Your task to perform on an android device: open chrome privacy settings Image 0: 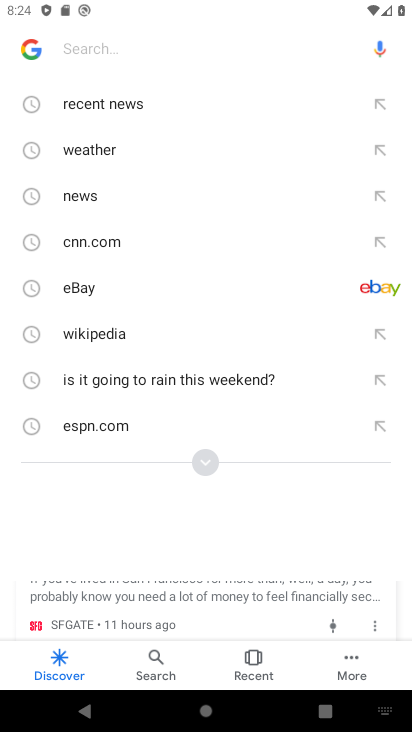
Step 0: press home button
Your task to perform on an android device: open chrome privacy settings Image 1: 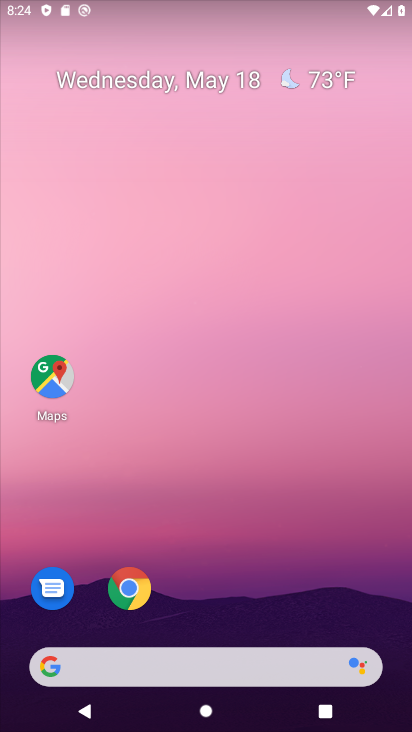
Step 1: drag from (365, 579) to (325, 134)
Your task to perform on an android device: open chrome privacy settings Image 2: 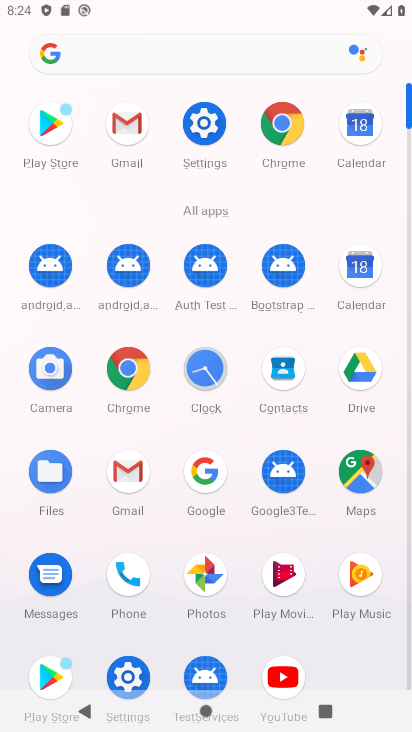
Step 2: click (124, 392)
Your task to perform on an android device: open chrome privacy settings Image 3: 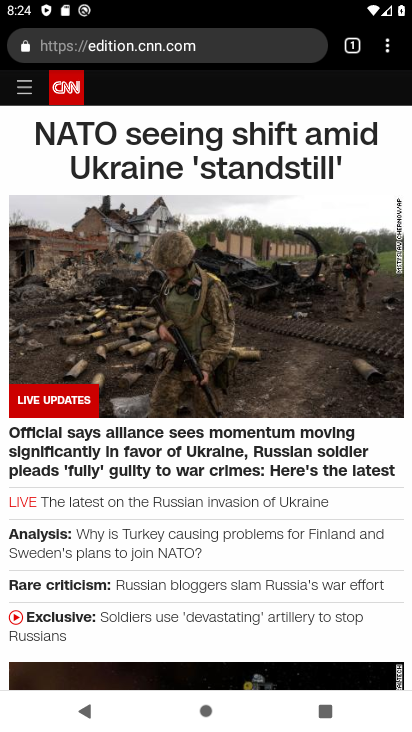
Step 3: drag from (395, 56) to (258, 520)
Your task to perform on an android device: open chrome privacy settings Image 4: 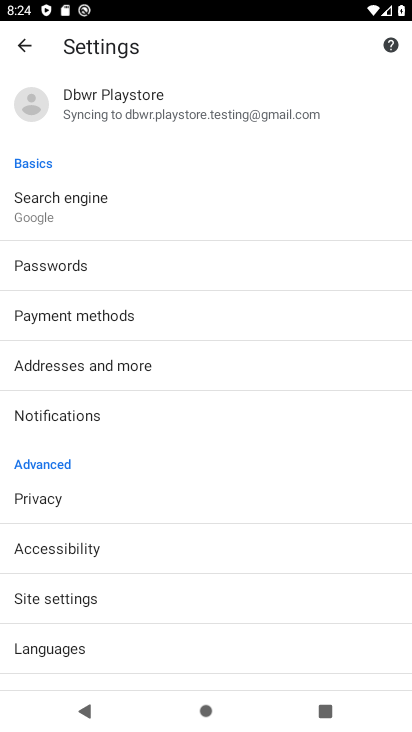
Step 4: drag from (183, 608) to (172, 259)
Your task to perform on an android device: open chrome privacy settings Image 5: 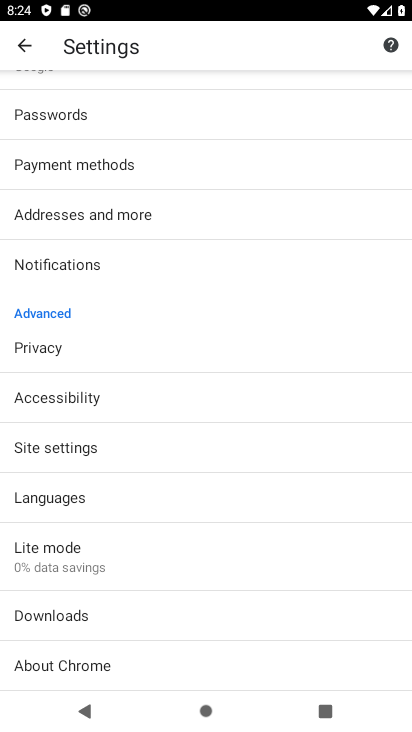
Step 5: drag from (224, 173) to (217, 528)
Your task to perform on an android device: open chrome privacy settings Image 6: 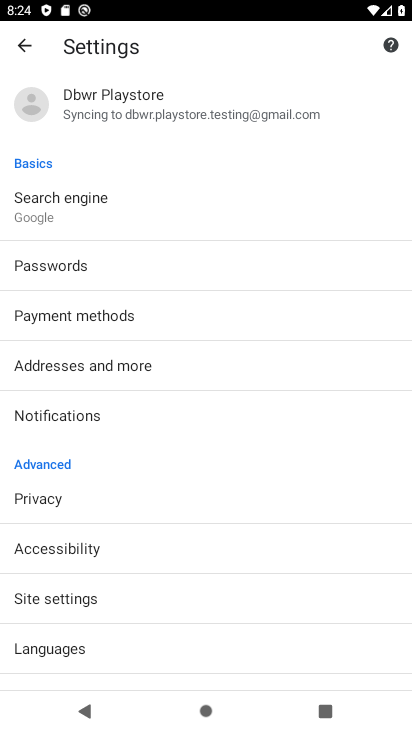
Step 6: click (68, 501)
Your task to perform on an android device: open chrome privacy settings Image 7: 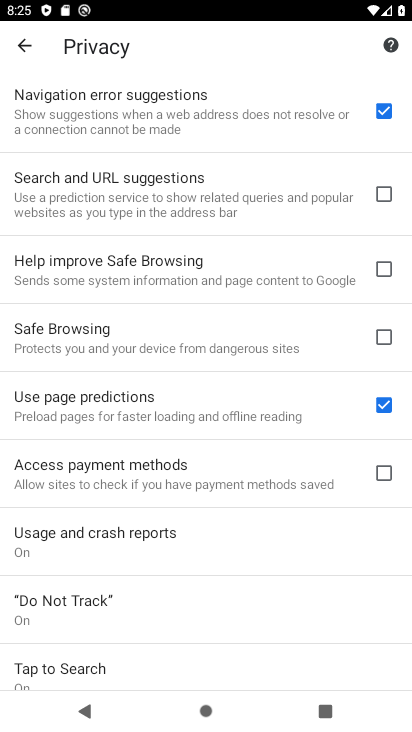
Step 7: task complete